Your task to perform on an android device: visit the assistant section in the google photos Image 0: 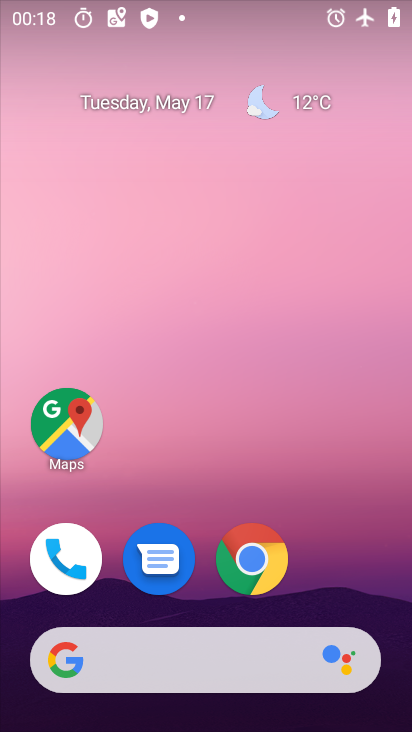
Step 0: drag from (354, 550) to (380, 104)
Your task to perform on an android device: visit the assistant section in the google photos Image 1: 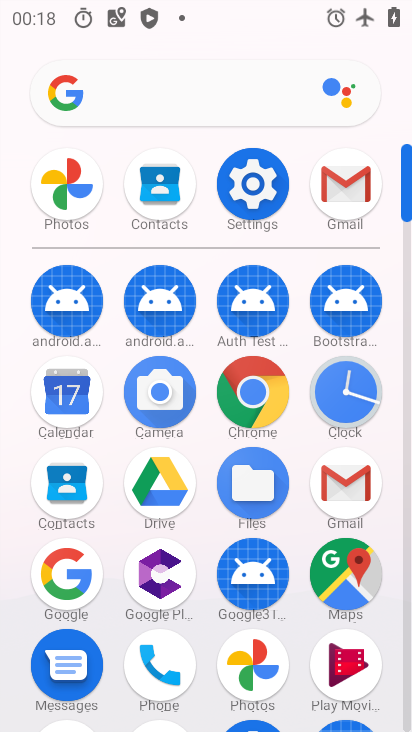
Step 1: click (83, 186)
Your task to perform on an android device: visit the assistant section in the google photos Image 2: 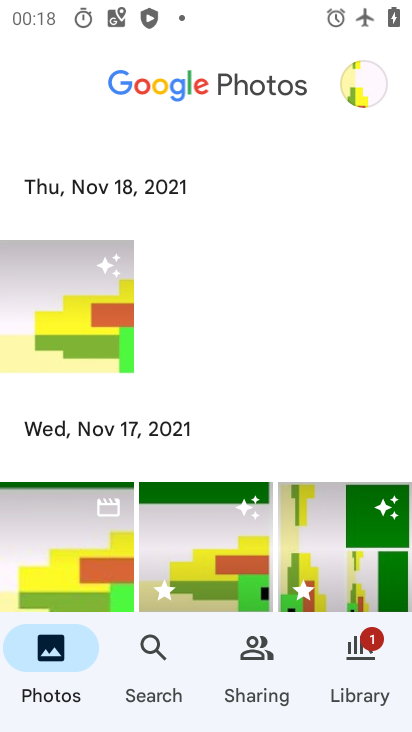
Step 2: click (347, 647)
Your task to perform on an android device: visit the assistant section in the google photos Image 3: 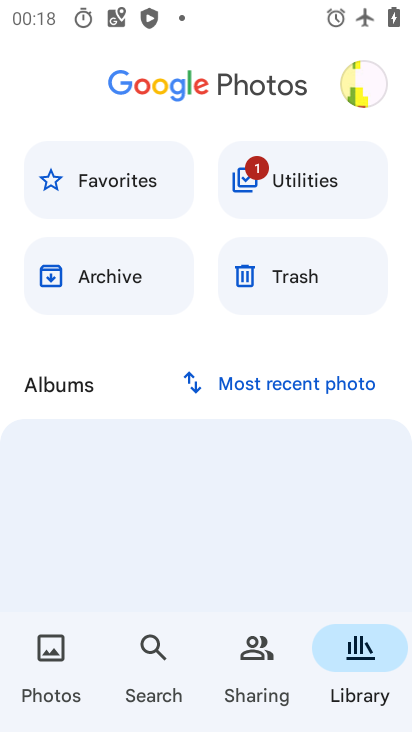
Step 3: task complete